Your task to perform on an android device: delete a single message in the gmail app Image 0: 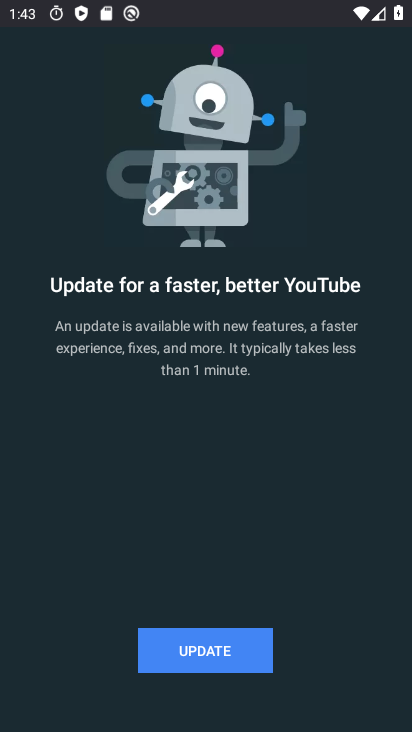
Step 0: press home button
Your task to perform on an android device: delete a single message in the gmail app Image 1: 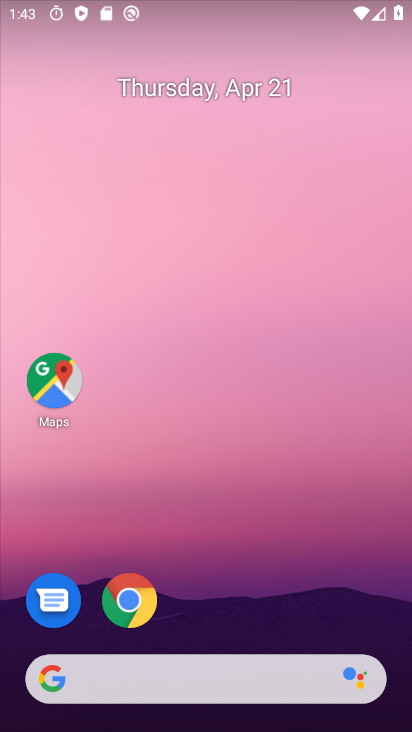
Step 1: drag from (228, 587) to (287, 98)
Your task to perform on an android device: delete a single message in the gmail app Image 2: 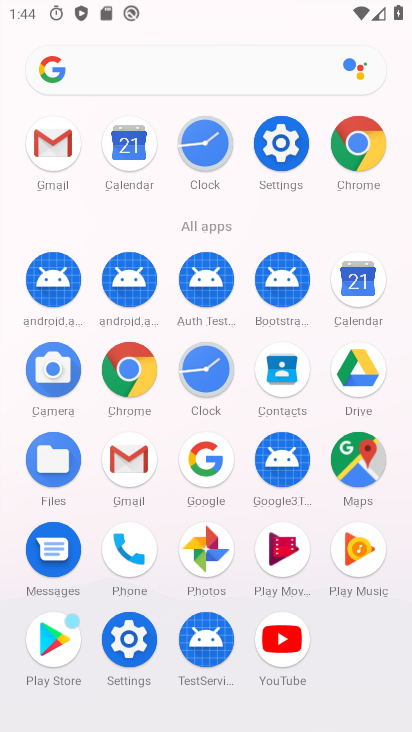
Step 2: click (57, 146)
Your task to perform on an android device: delete a single message in the gmail app Image 3: 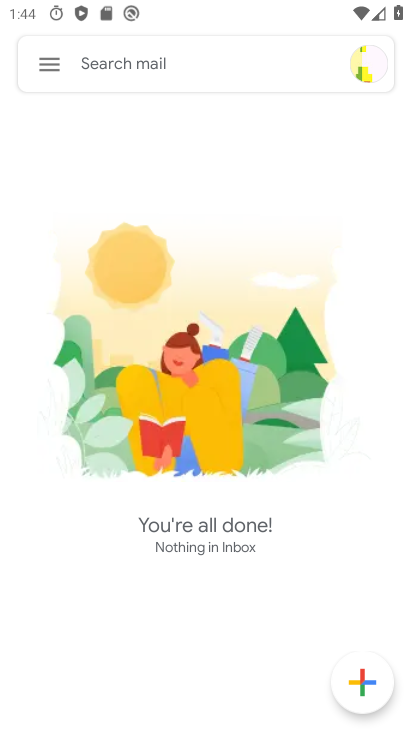
Step 3: click (50, 58)
Your task to perform on an android device: delete a single message in the gmail app Image 4: 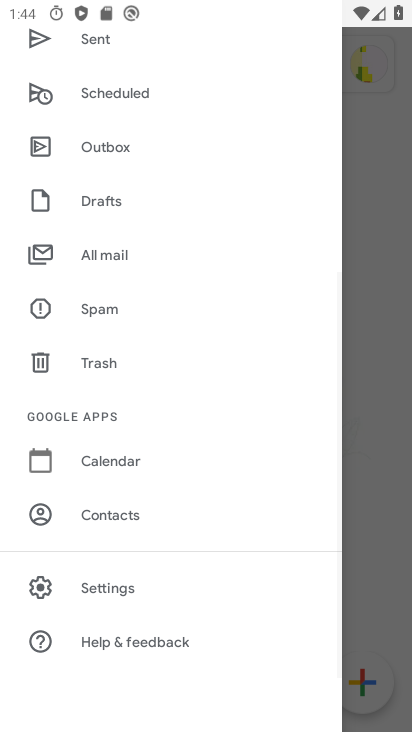
Step 4: click (95, 255)
Your task to perform on an android device: delete a single message in the gmail app Image 5: 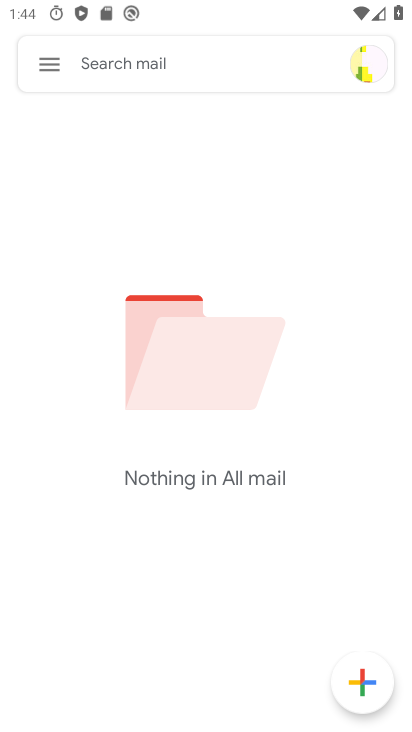
Step 5: task complete